Your task to perform on an android device: Go to CNN.com Image 0: 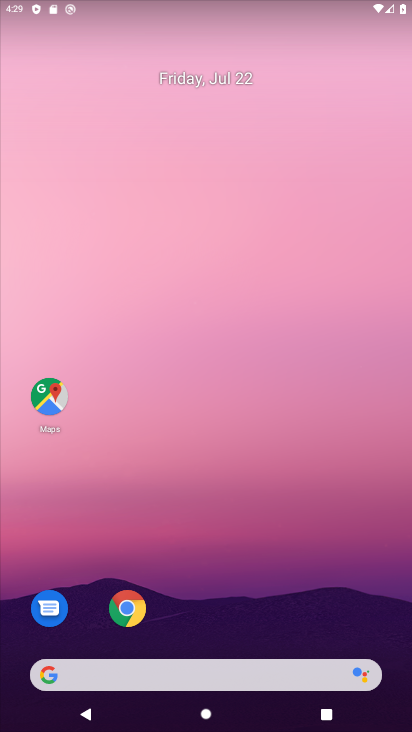
Step 0: click (131, 599)
Your task to perform on an android device: Go to CNN.com Image 1: 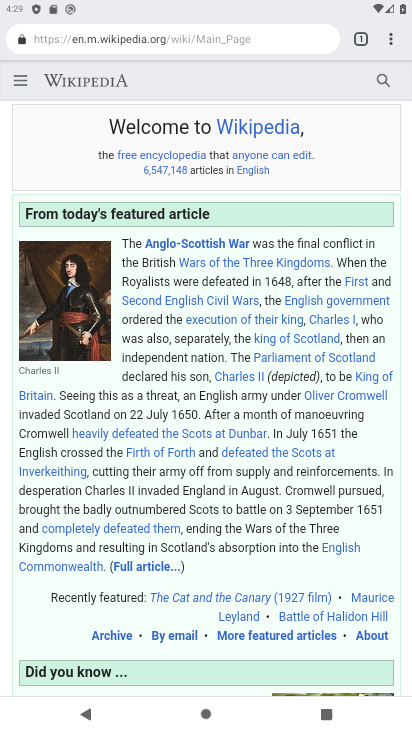
Step 1: click (354, 46)
Your task to perform on an android device: Go to CNN.com Image 2: 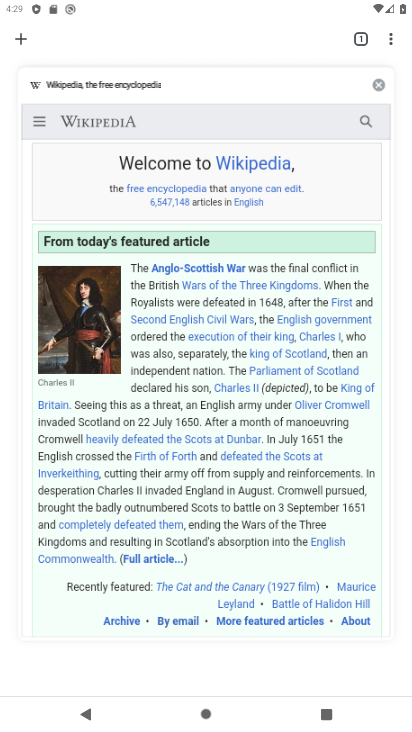
Step 2: click (22, 36)
Your task to perform on an android device: Go to CNN.com Image 3: 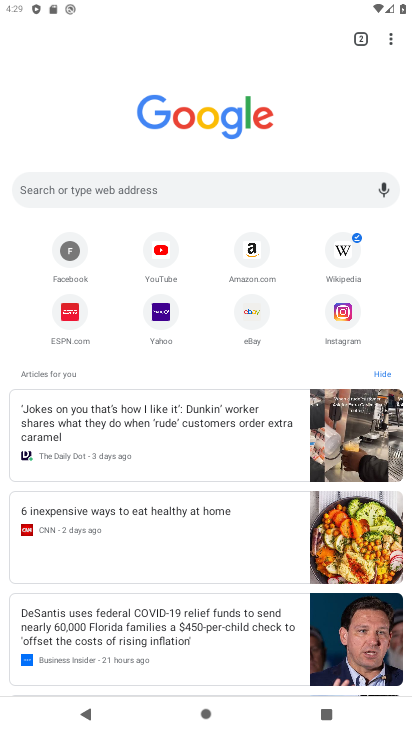
Step 3: click (94, 199)
Your task to perform on an android device: Go to CNN.com Image 4: 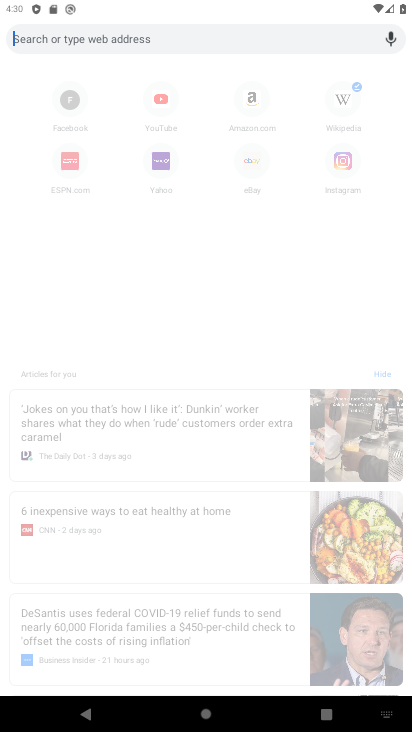
Step 4: type "cnn"
Your task to perform on an android device: Go to CNN.com Image 5: 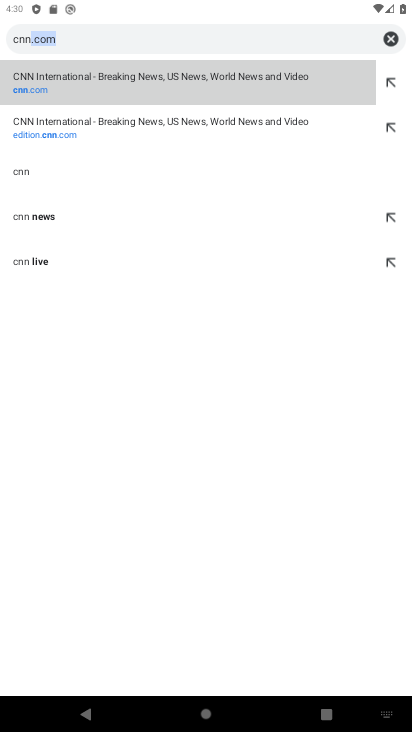
Step 5: click (208, 99)
Your task to perform on an android device: Go to CNN.com Image 6: 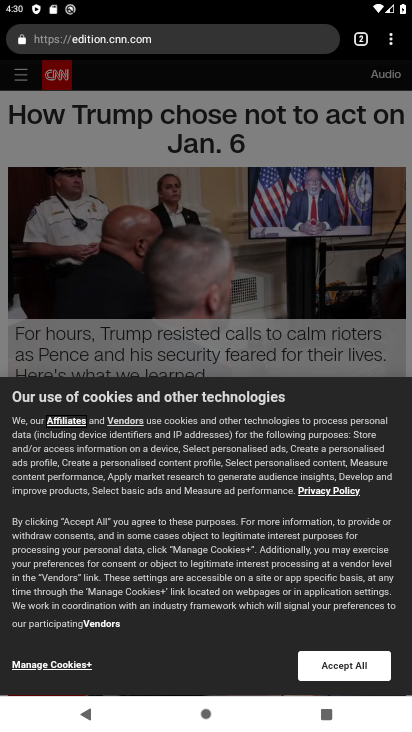
Step 6: task complete